Your task to perform on an android device: Open battery settings Image 0: 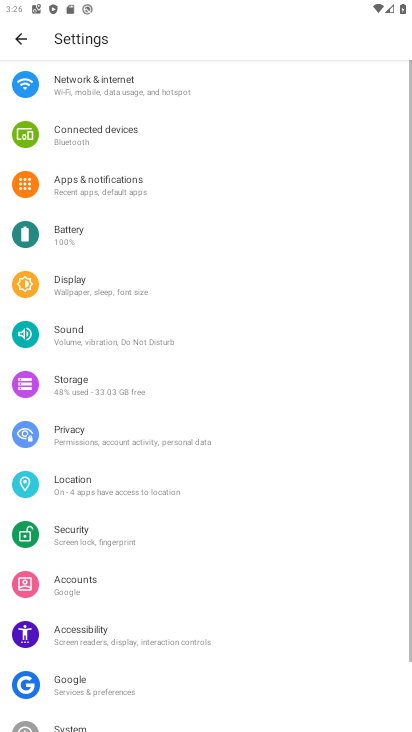
Step 0: press home button
Your task to perform on an android device: Open battery settings Image 1: 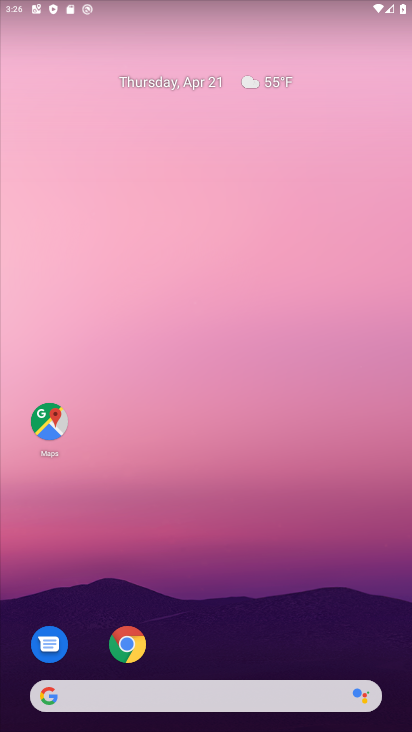
Step 1: drag from (216, 671) to (250, 36)
Your task to perform on an android device: Open battery settings Image 2: 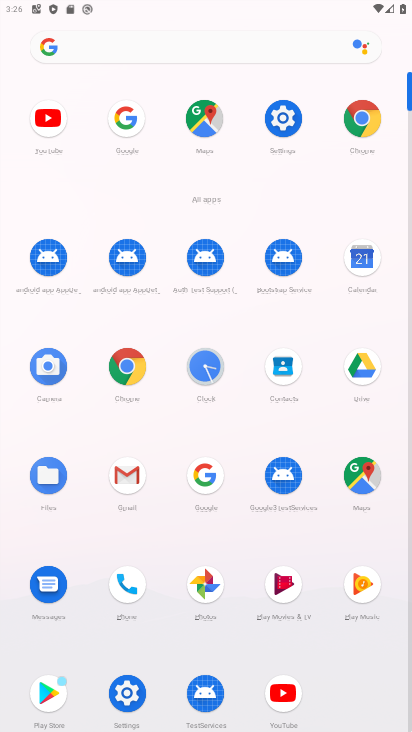
Step 2: click (285, 124)
Your task to perform on an android device: Open battery settings Image 3: 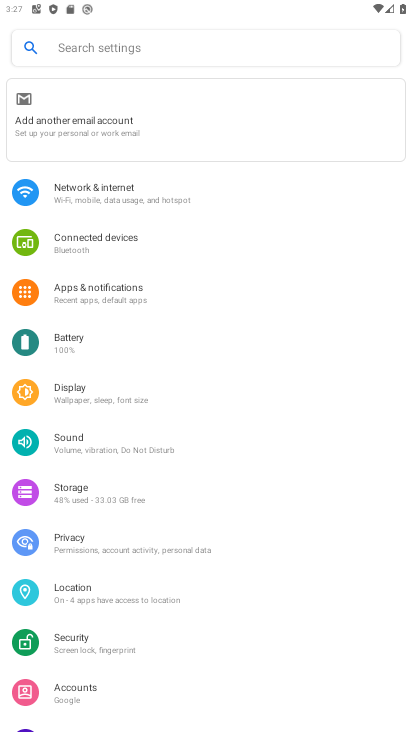
Step 3: click (75, 349)
Your task to perform on an android device: Open battery settings Image 4: 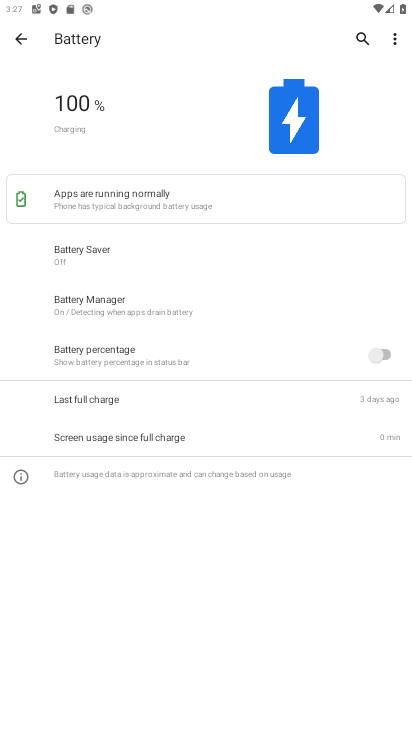
Step 4: click (399, 27)
Your task to perform on an android device: Open battery settings Image 5: 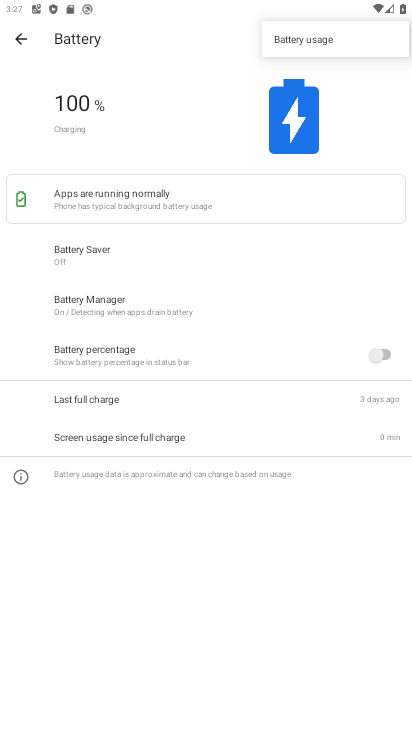
Step 5: click (306, 44)
Your task to perform on an android device: Open battery settings Image 6: 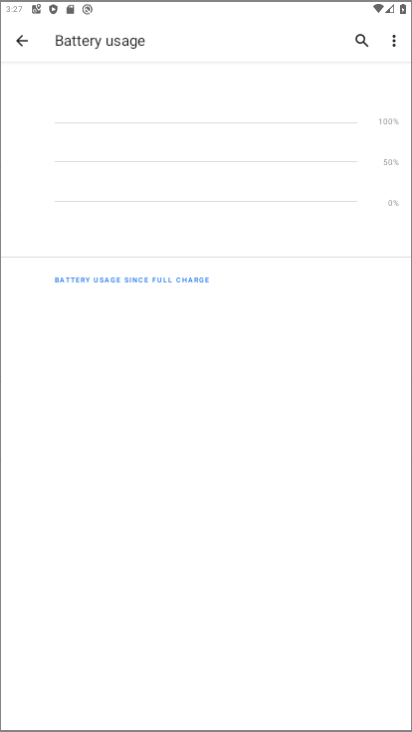
Step 6: task complete